Your task to perform on an android device: open device folders in google photos Image 0: 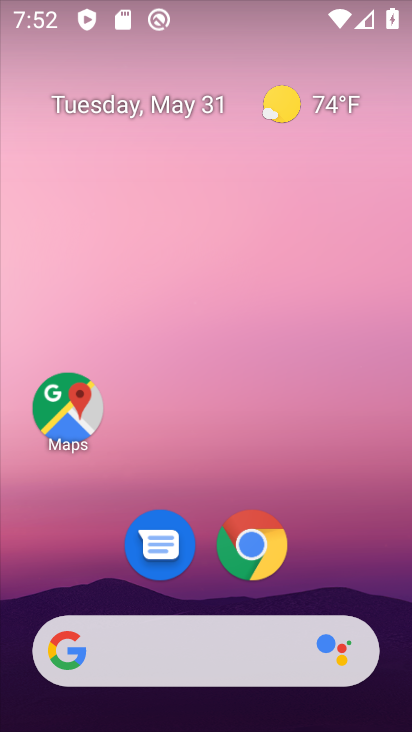
Step 0: drag from (366, 560) to (182, 27)
Your task to perform on an android device: open device folders in google photos Image 1: 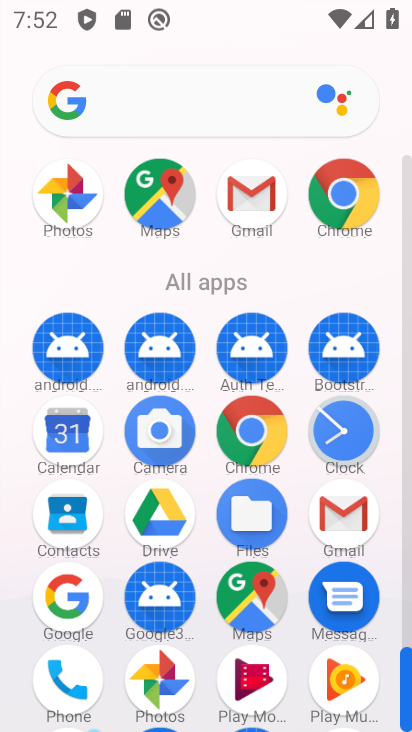
Step 1: drag from (9, 597) to (4, 283)
Your task to perform on an android device: open device folders in google photos Image 2: 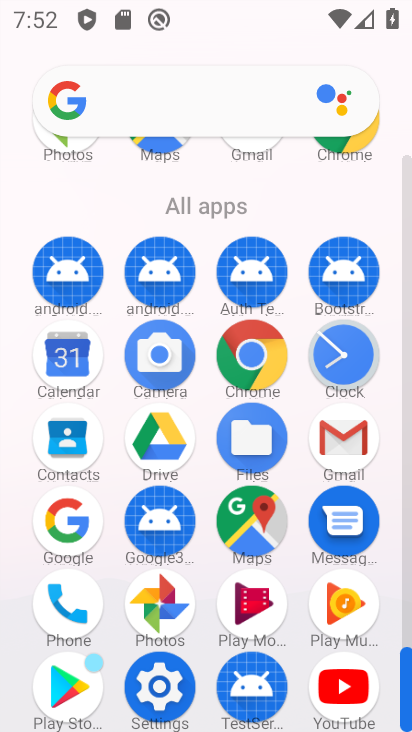
Step 2: click (154, 605)
Your task to perform on an android device: open device folders in google photos Image 3: 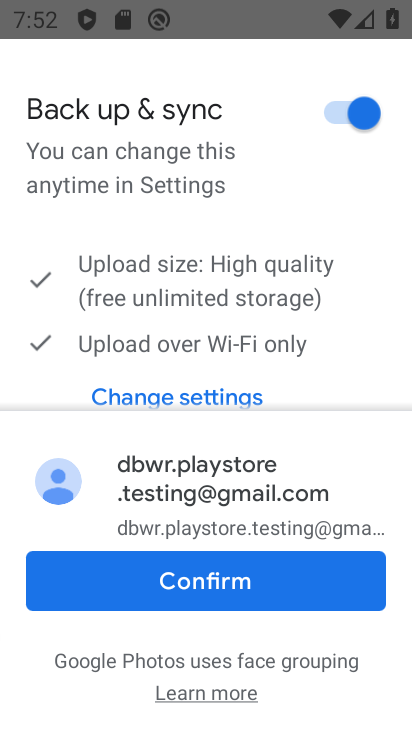
Step 3: click (169, 573)
Your task to perform on an android device: open device folders in google photos Image 4: 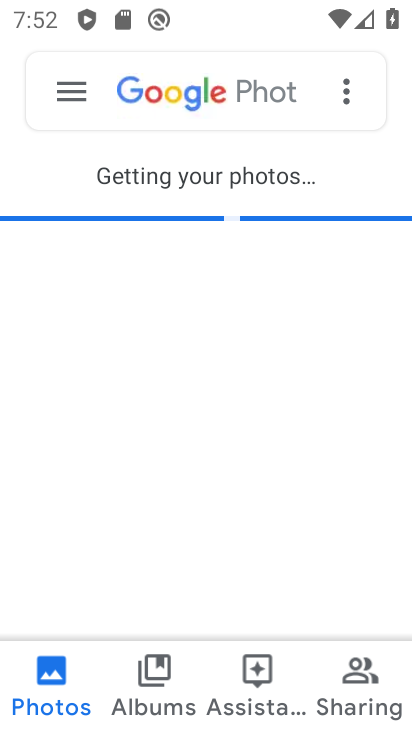
Step 4: click (78, 90)
Your task to perform on an android device: open device folders in google photos Image 5: 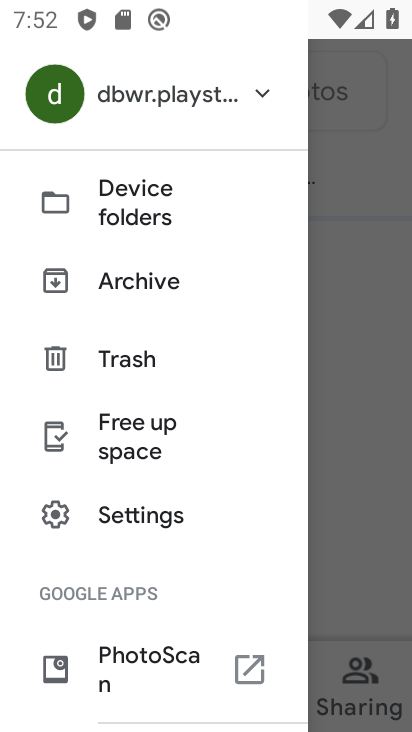
Step 5: click (125, 220)
Your task to perform on an android device: open device folders in google photos Image 6: 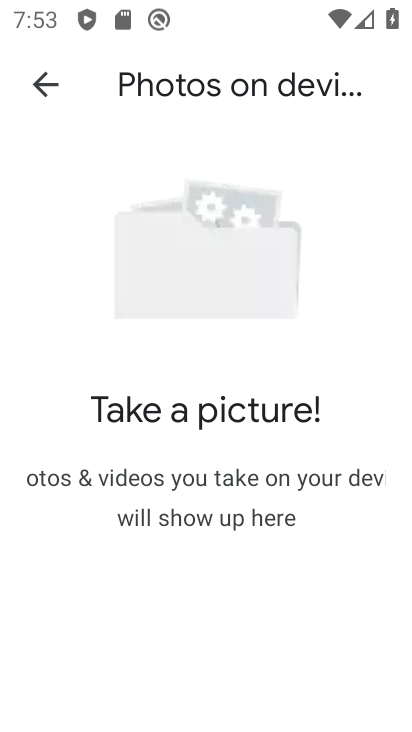
Step 6: task complete